Your task to perform on an android device: toggle data saver in the chrome app Image 0: 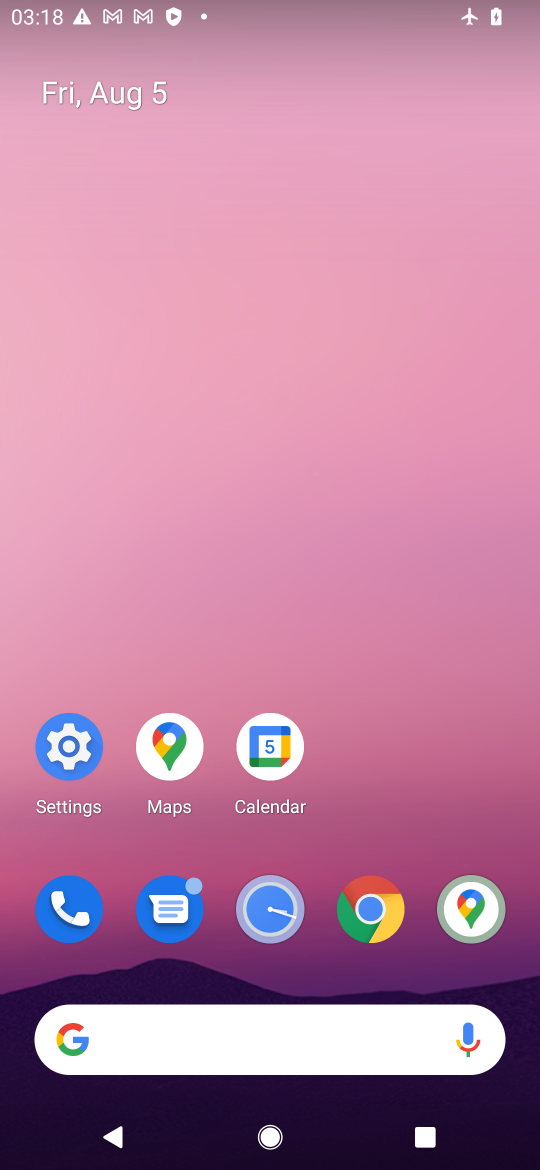
Step 0: click (353, 920)
Your task to perform on an android device: toggle data saver in the chrome app Image 1: 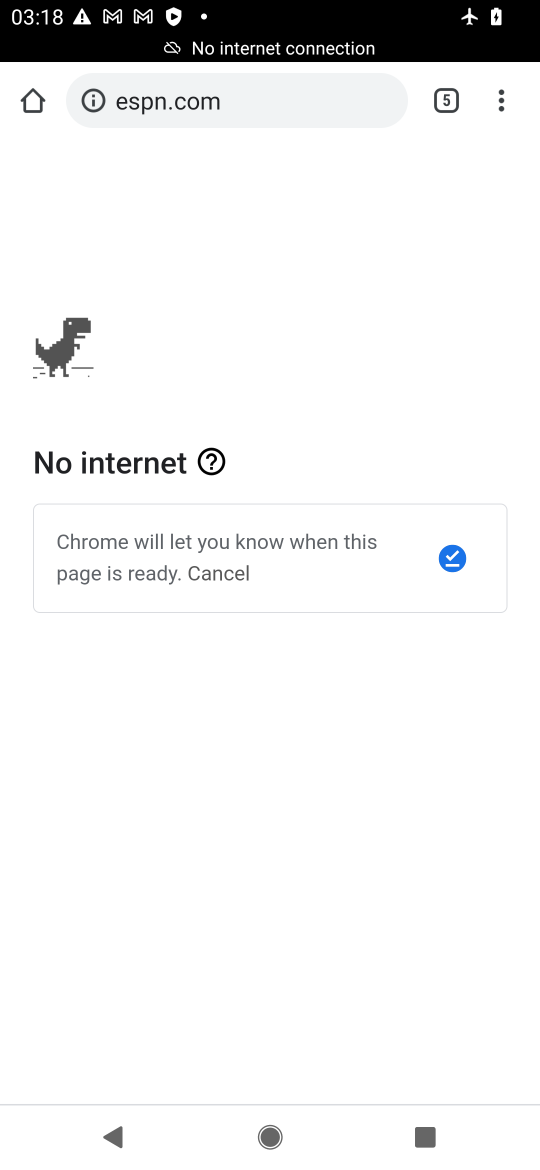
Step 1: click (503, 89)
Your task to perform on an android device: toggle data saver in the chrome app Image 2: 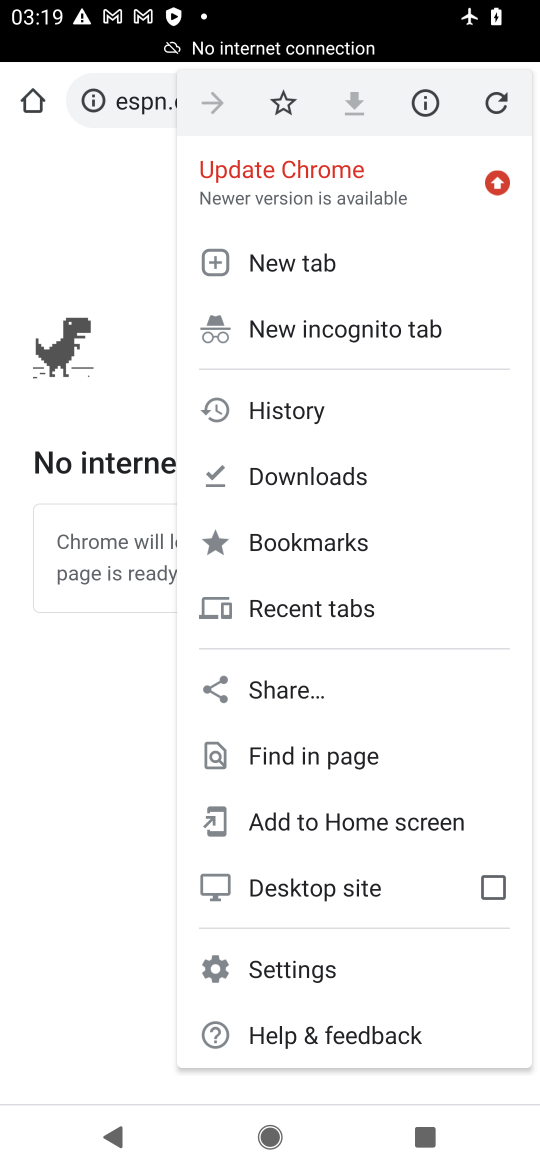
Step 2: click (272, 960)
Your task to perform on an android device: toggle data saver in the chrome app Image 3: 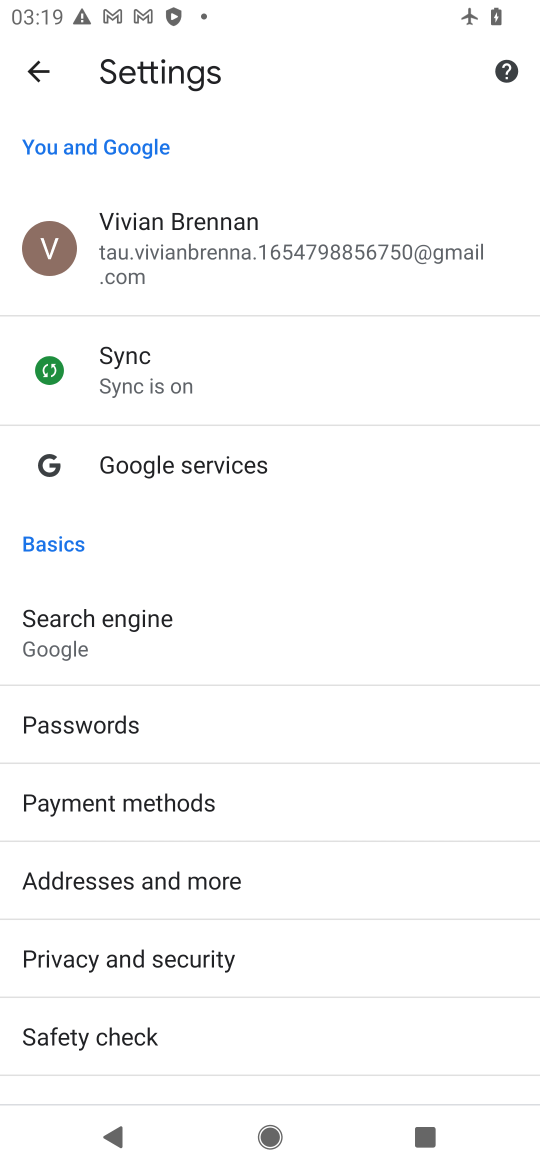
Step 3: drag from (298, 1062) to (298, 602)
Your task to perform on an android device: toggle data saver in the chrome app Image 4: 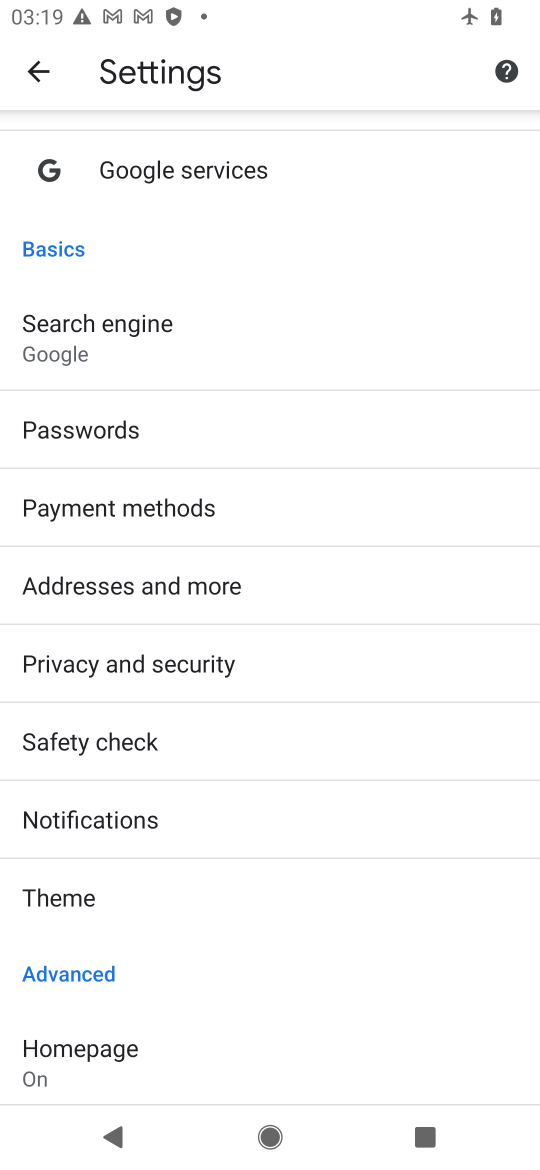
Step 4: drag from (230, 909) to (296, 356)
Your task to perform on an android device: toggle data saver in the chrome app Image 5: 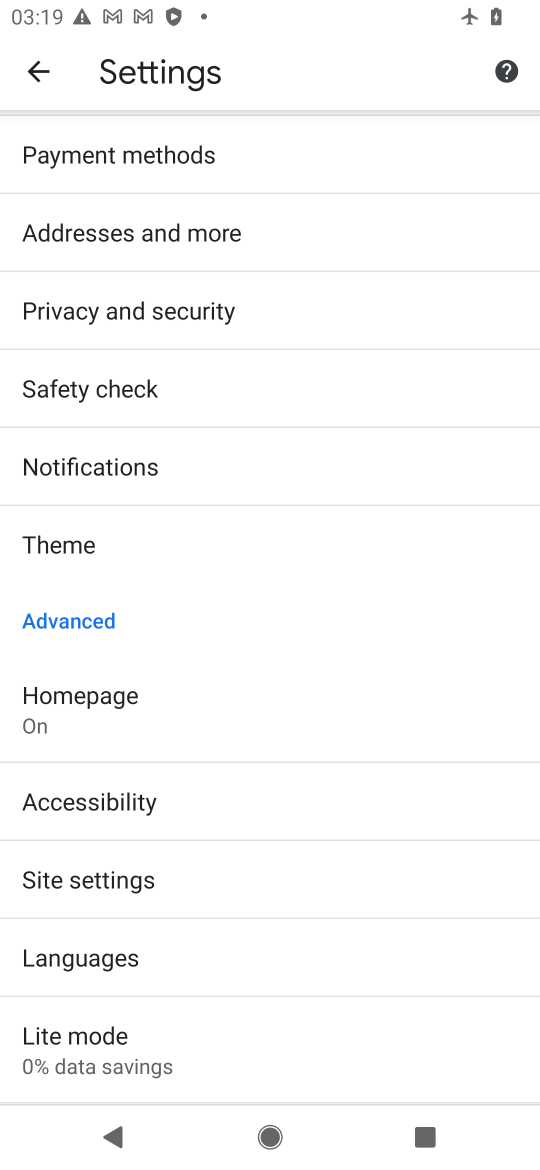
Step 5: click (70, 1031)
Your task to perform on an android device: toggle data saver in the chrome app Image 6: 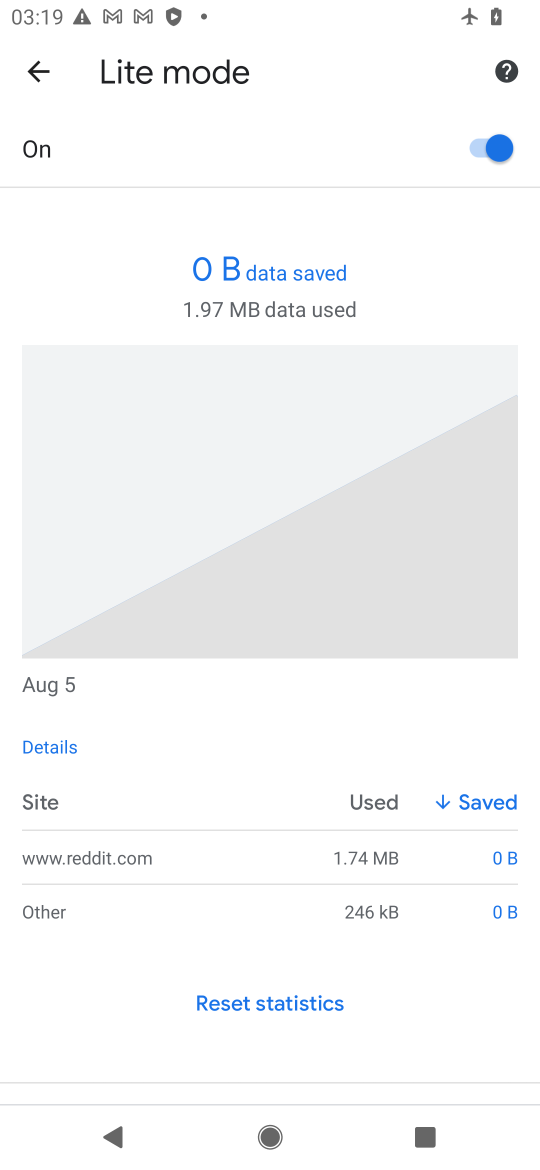
Step 6: click (496, 151)
Your task to perform on an android device: toggle data saver in the chrome app Image 7: 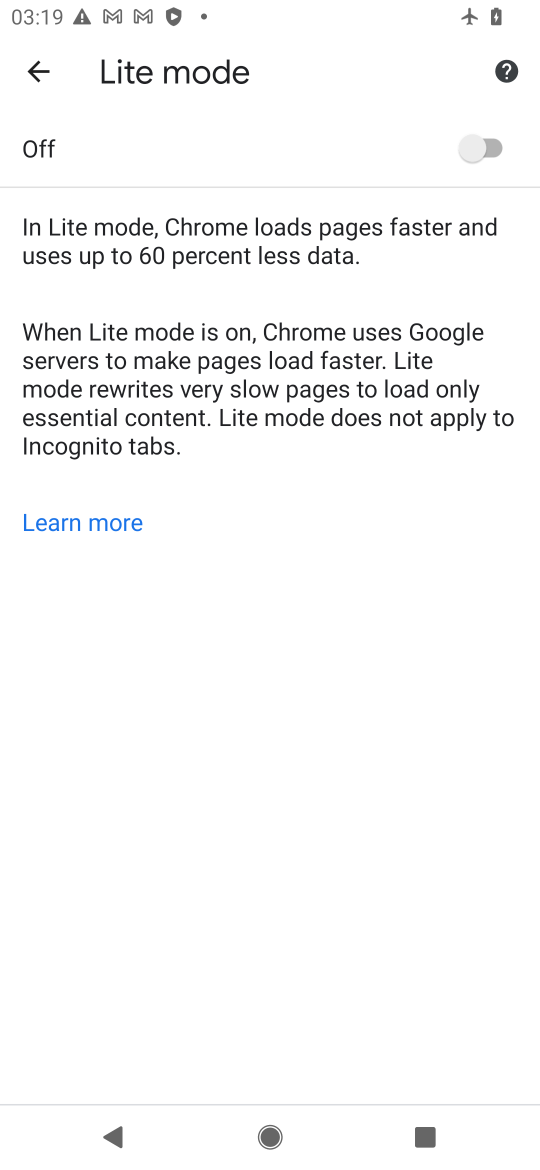
Step 7: task complete